Your task to perform on an android device: make emails show in primary in the gmail app Image 0: 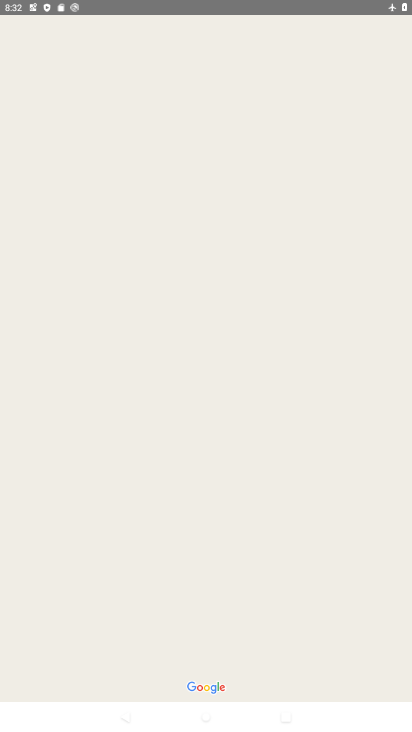
Step 0: press home button
Your task to perform on an android device: make emails show in primary in the gmail app Image 1: 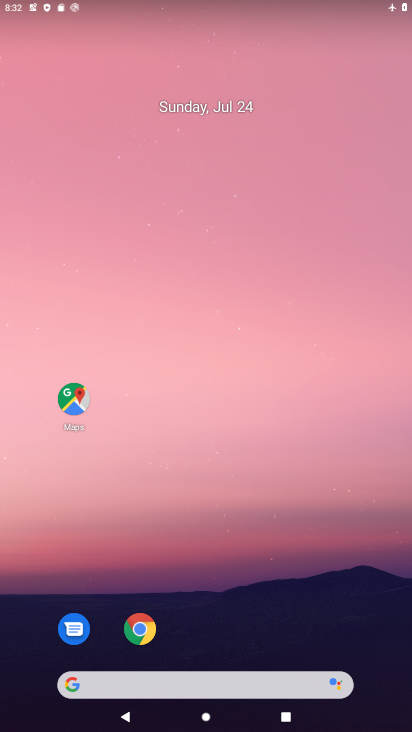
Step 1: drag from (202, 647) to (257, 184)
Your task to perform on an android device: make emails show in primary in the gmail app Image 2: 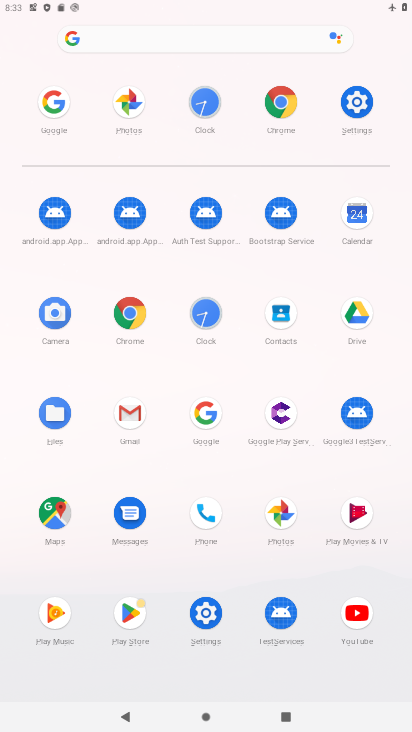
Step 2: click (134, 424)
Your task to perform on an android device: make emails show in primary in the gmail app Image 3: 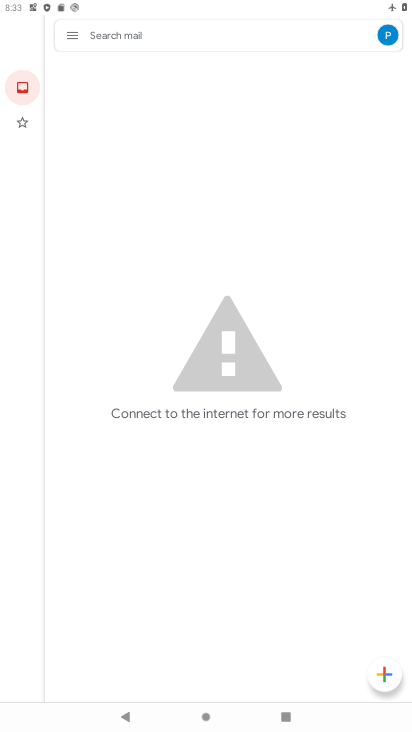
Step 3: click (71, 36)
Your task to perform on an android device: make emails show in primary in the gmail app Image 4: 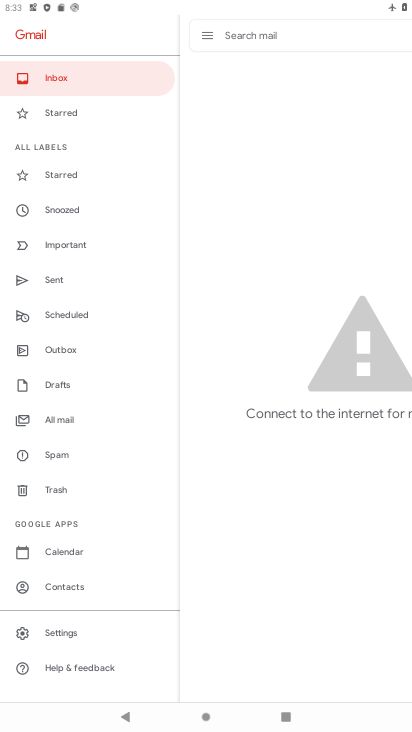
Step 4: click (56, 624)
Your task to perform on an android device: make emails show in primary in the gmail app Image 5: 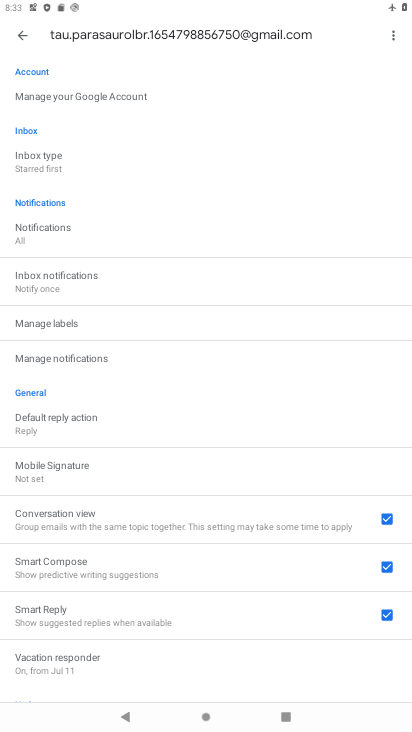
Step 5: task complete